Your task to perform on an android device: What is the speed of light? Image 0: 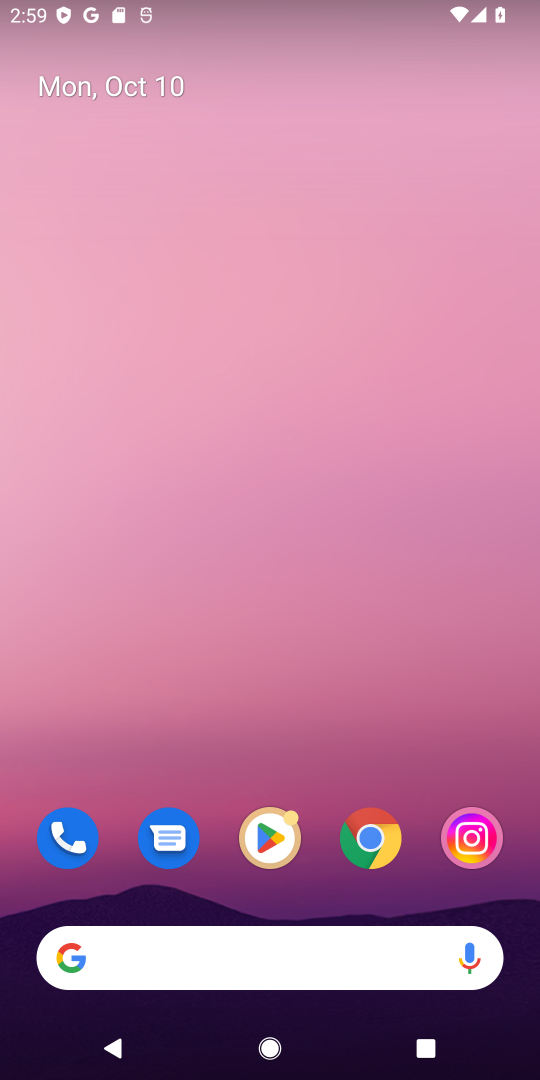
Step 0: click (213, 957)
Your task to perform on an android device: What is the speed of light? Image 1: 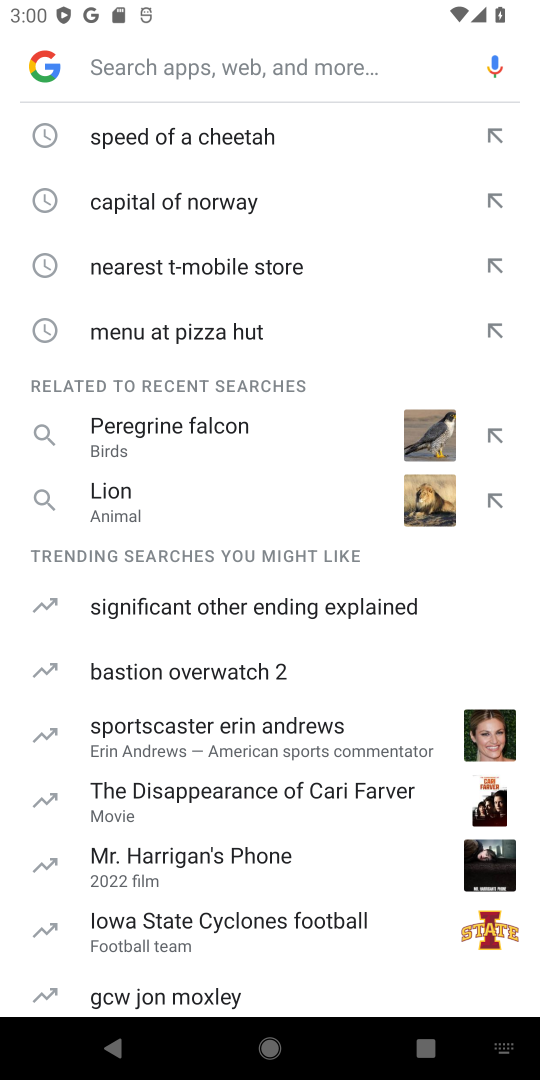
Step 1: type "speed of light"
Your task to perform on an android device: What is the speed of light? Image 2: 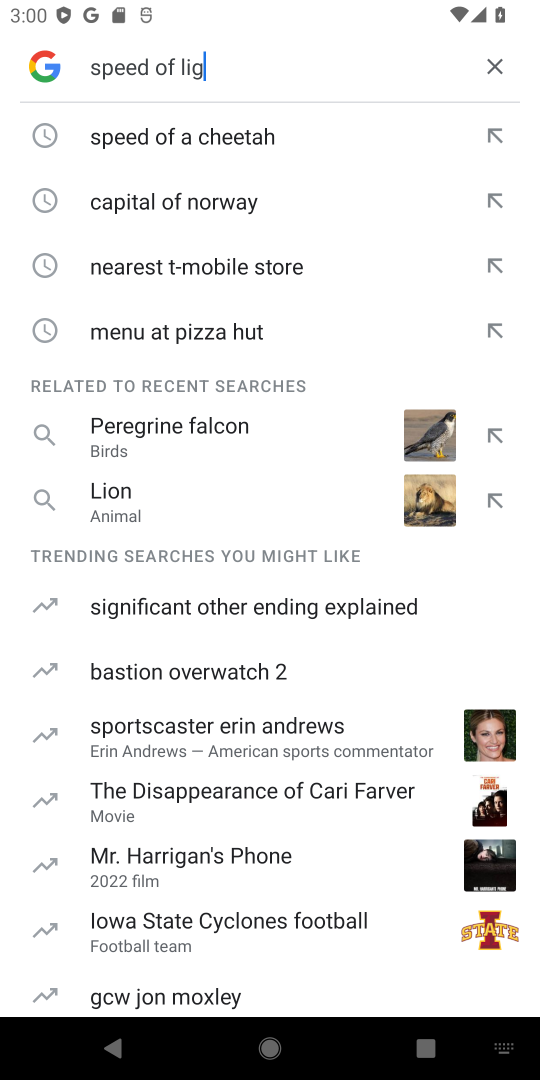
Step 2: type ""
Your task to perform on an android device: What is the speed of light? Image 3: 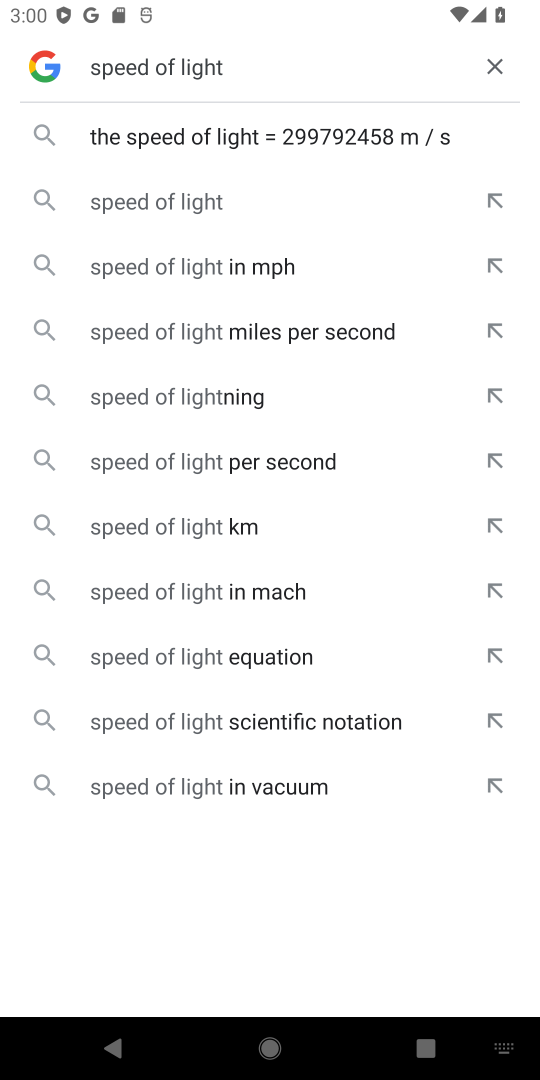
Step 3: click (196, 201)
Your task to perform on an android device: What is the speed of light? Image 4: 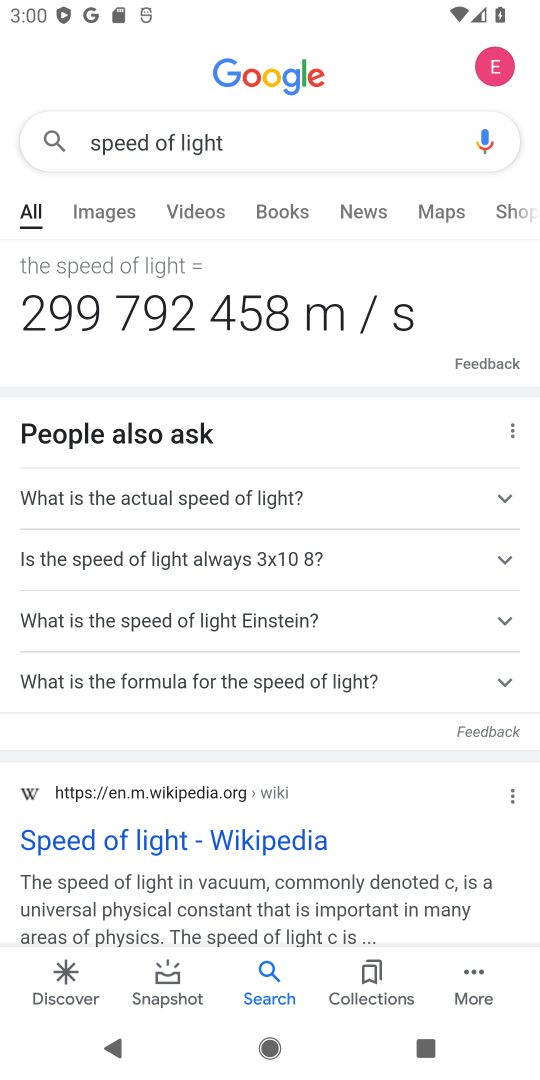
Step 4: task complete